Your task to perform on an android device: Go to internet settings Image 0: 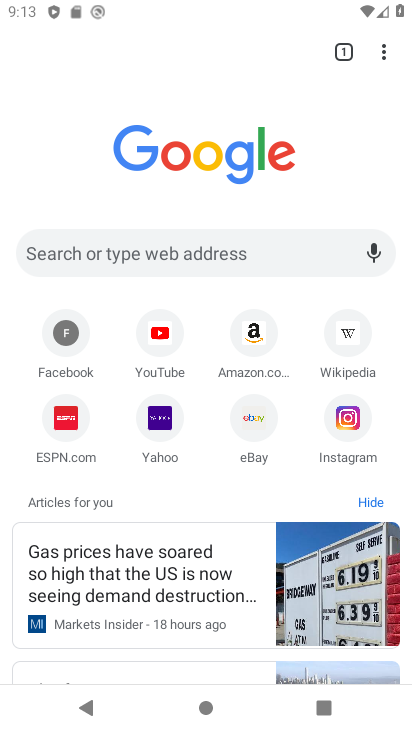
Step 0: click (120, 566)
Your task to perform on an android device: Go to internet settings Image 1: 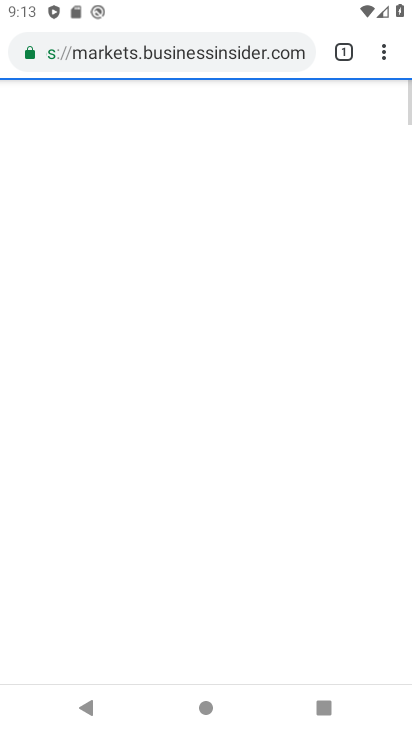
Step 1: press home button
Your task to perform on an android device: Go to internet settings Image 2: 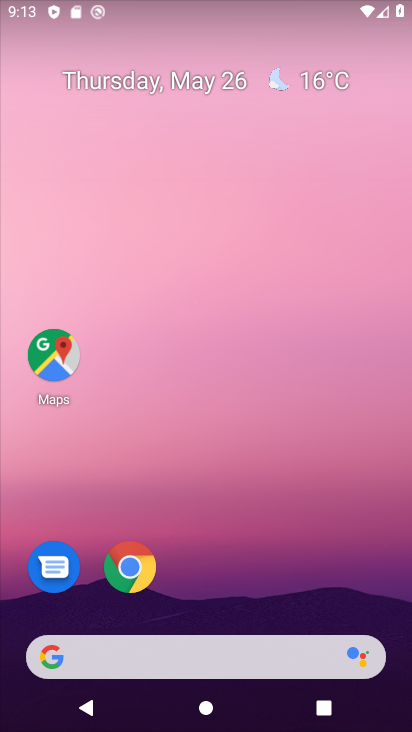
Step 2: drag from (403, 696) to (379, 277)
Your task to perform on an android device: Go to internet settings Image 3: 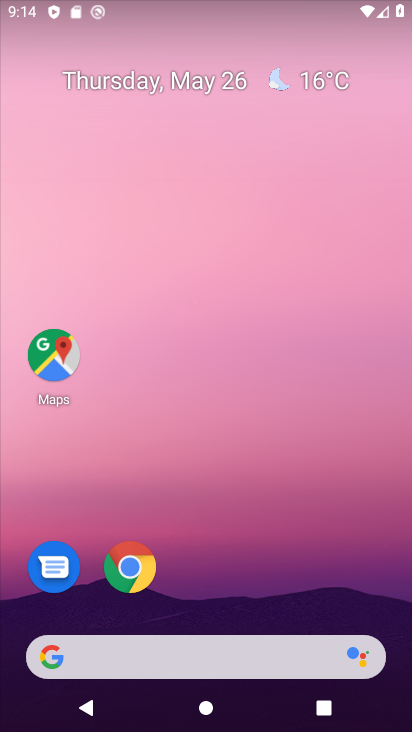
Step 3: drag from (387, 704) to (361, 241)
Your task to perform on an android device: Go to internet settings Image 4: 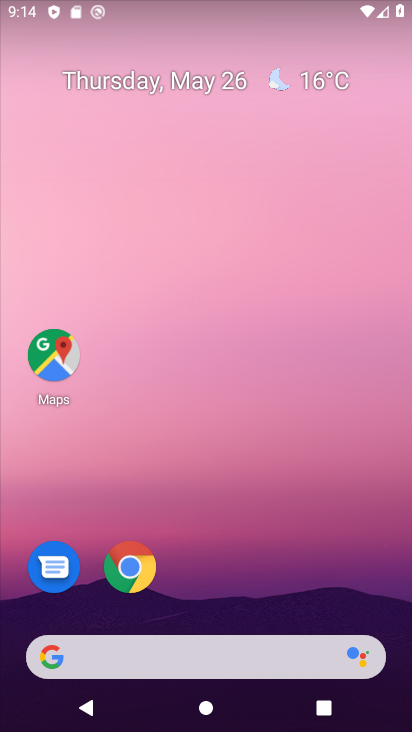
Step 4: drag from (397, 709) to (358, 227)
Your task to perform on an android device: Go to internet settings Image 5: 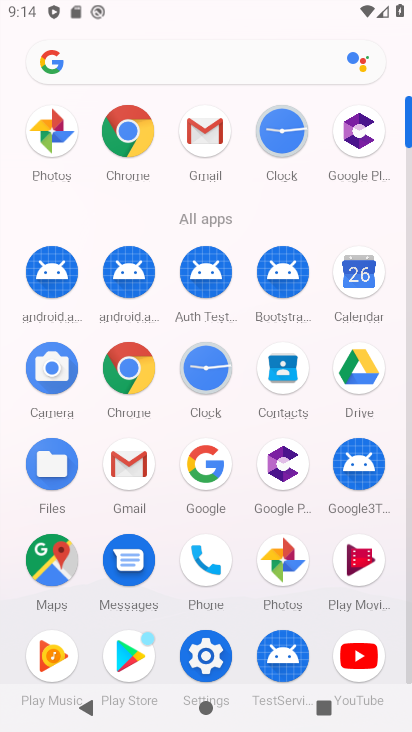
Step 5: click (215, 659)
Your task to perform on an android device: Go to internet settings Image 6: 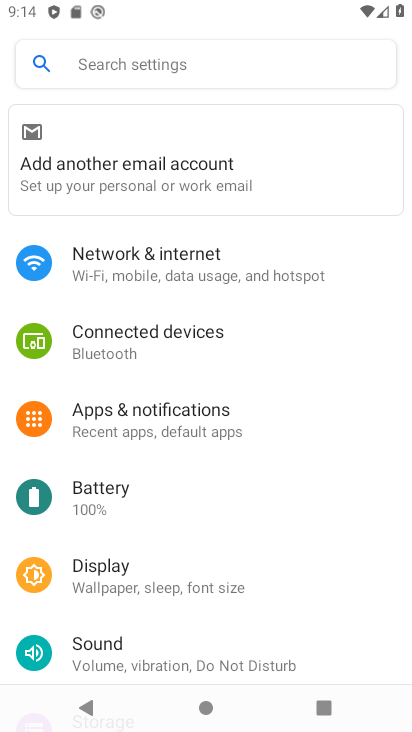
Step 6: click (168, 140)
Your task to perform on an android device: Go to internet settings Image 7: 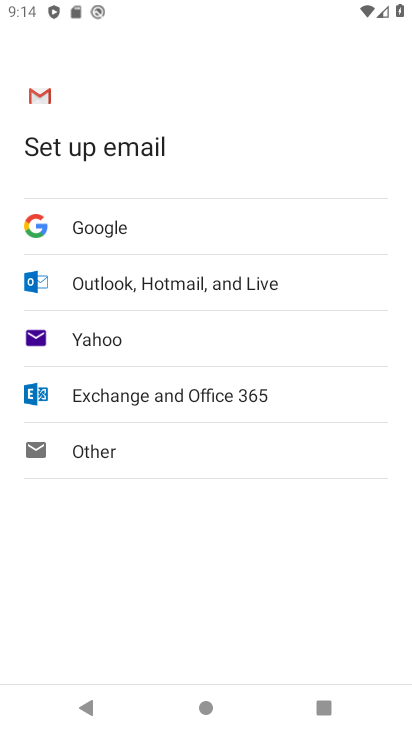
Step 7: press back button
Your task to perform on an android device: Go to internet settings Image 8: 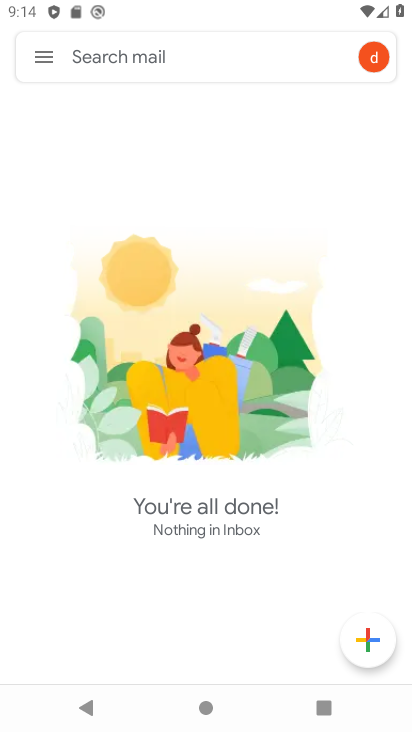
Step 8: press back button
Your task to perform on an android device: Go to internet settings Image 9: 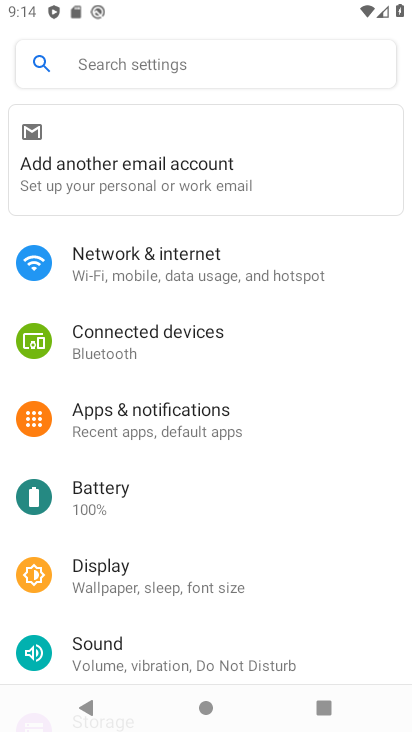
Step 9: click (157, 268)
Your task to perform on an android device: Go to internet settings Image 10: 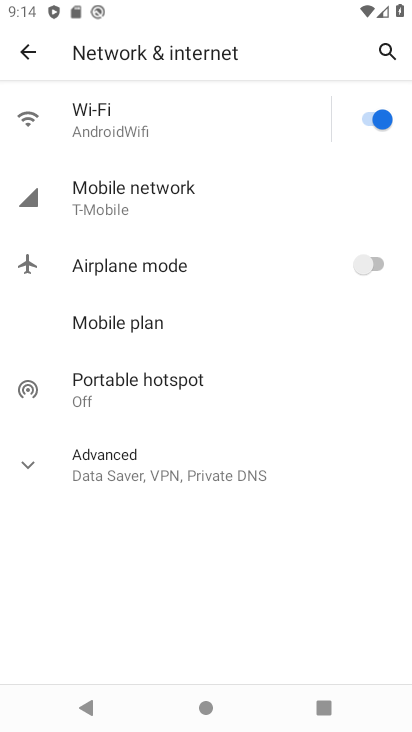
Step 10: click (104, 208)
Your task to perform on an android device: Go to internet settings Image 11: 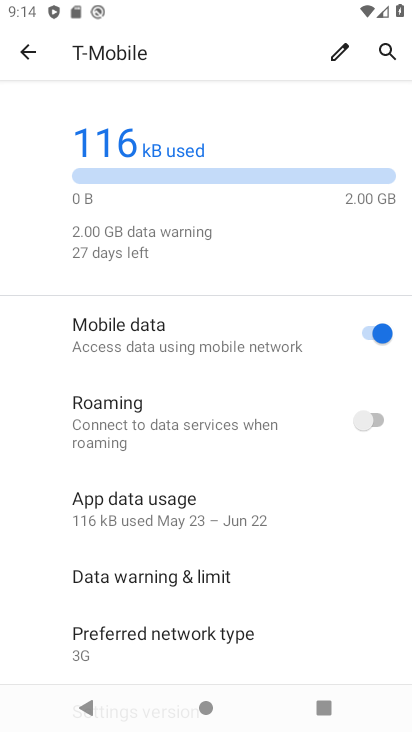
Step 11: task complete